Your task to perform on an android device: star an email in the gmail app Image 0: 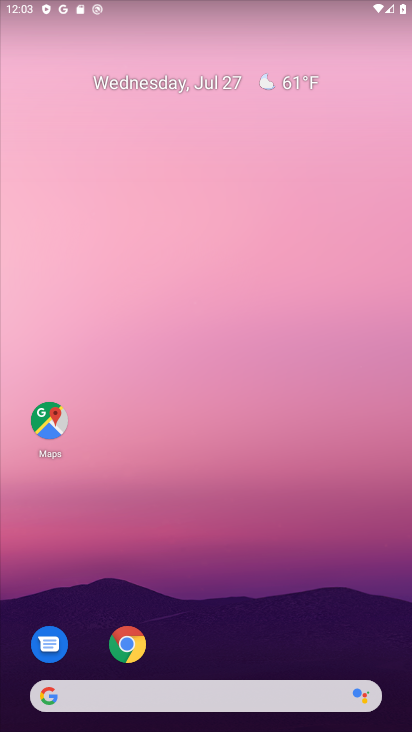
Step 0: drag from (172, 628) to (242, 132)
Your task to perform on an android device: star an email in the gmail app Image 1: 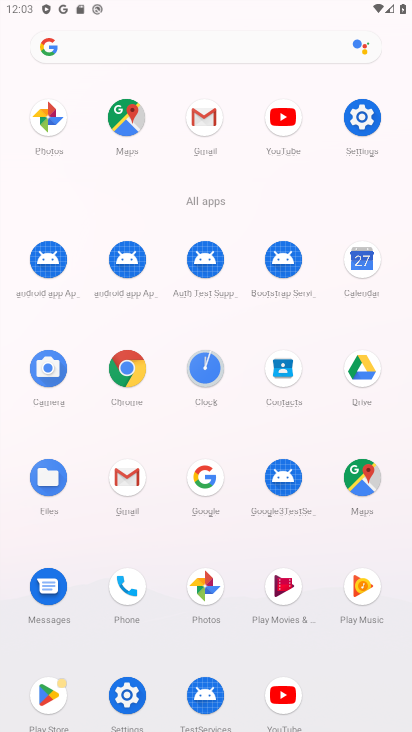
Step 1: click (129, 480)
Your task to perform on an android device: star an email in the gmail app Image 2: 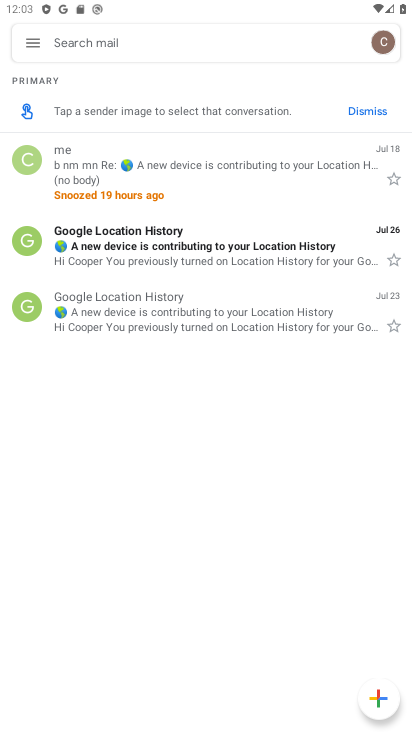
Step 2: click (41, 36)
Your task to perform on an android device: star an email in the gmail app Image 3: 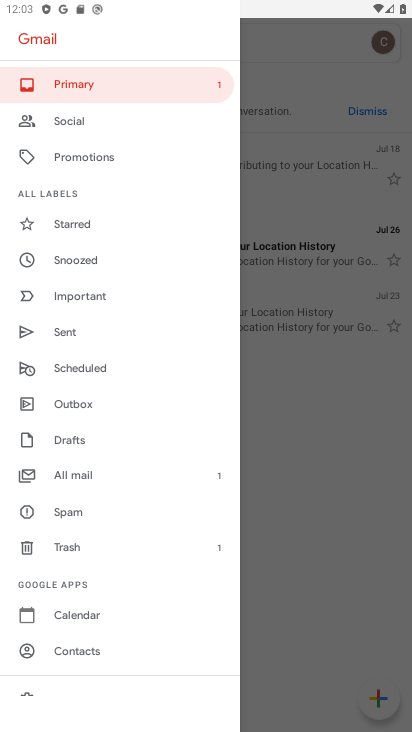
Step 3: click (311, 423)
Your task to perform on an android device: star an email in the gmail app Image 4: 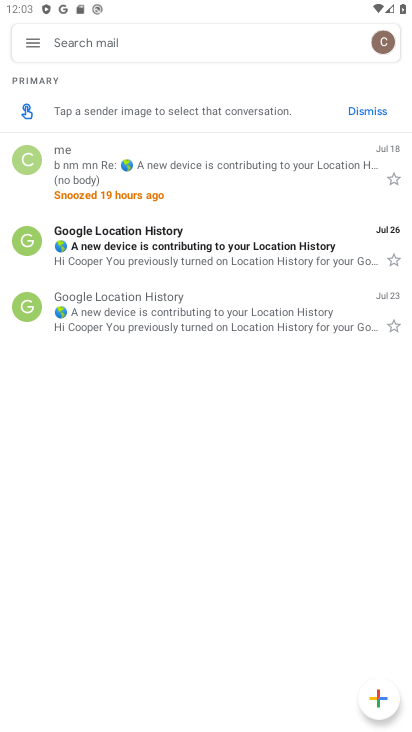
Step 4: click (279, 185)
Your task to perform on an android device: star an email in the gmail app Image 5: 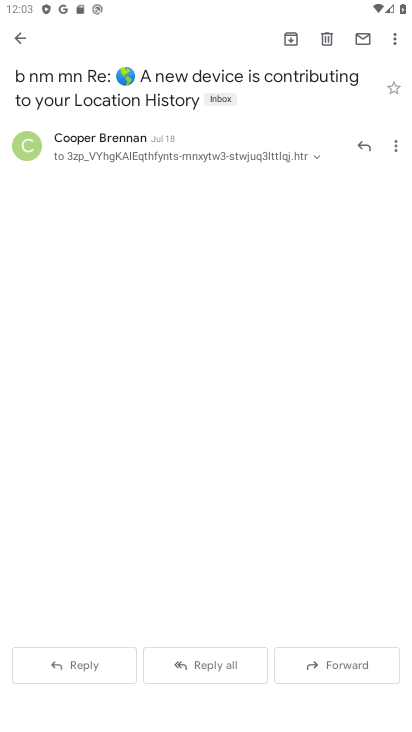
Step 5: click (386, 101)
Your task to perform on an android device: star an email in the gmail app Image 6: 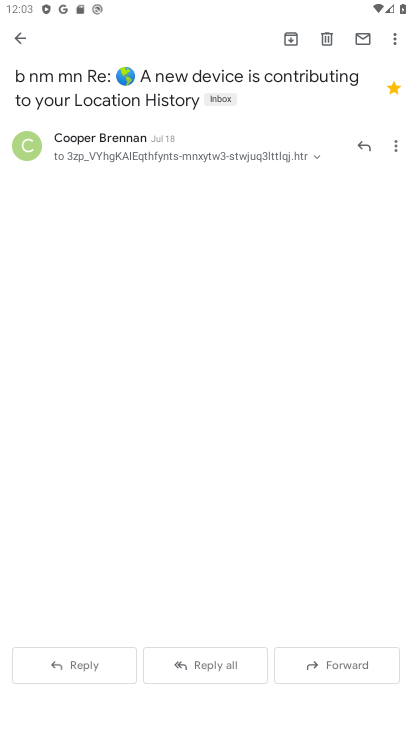
Step 6: task complete